Your task to perform on an android device: What's on my calendar tomorrow? Image 0: 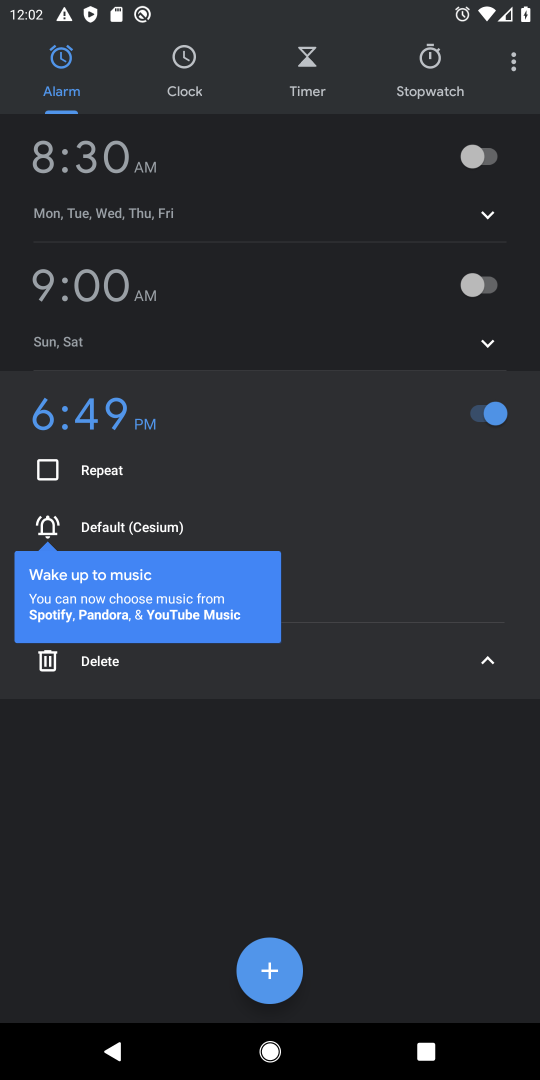
Step 0: press home button
Your task to perform on an android device: What's on my calendar tomorrow? Image 1: 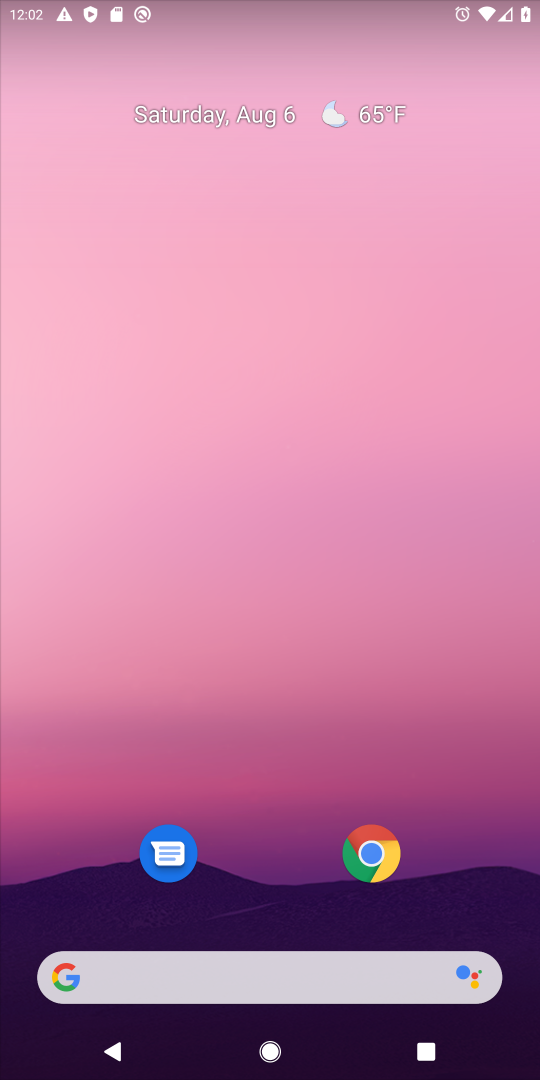
Step 1: drag from (240, 985) to (186, 14)
Your task to perform on an android device: What's on my calendar tomorrow? Image 2: 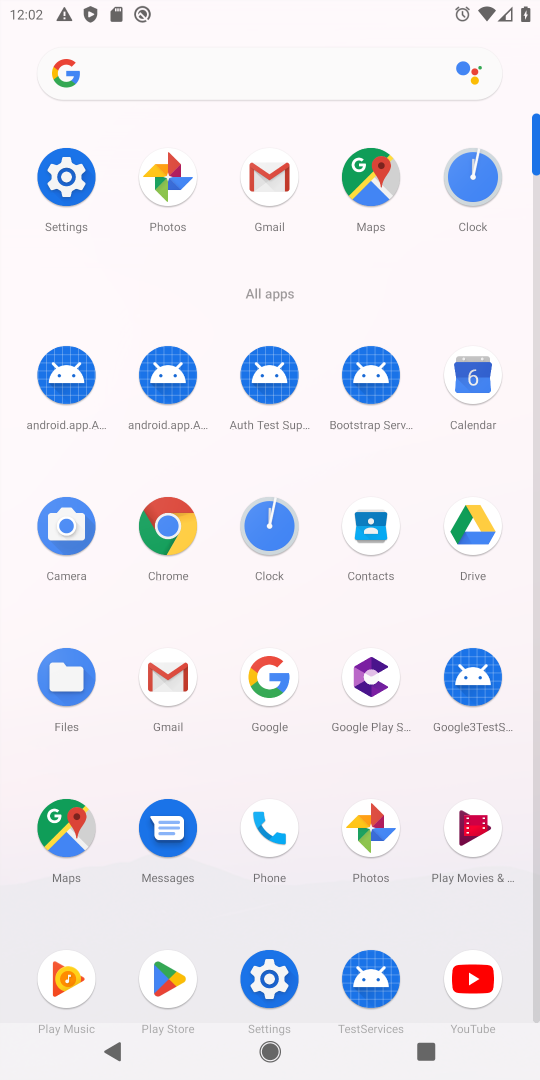
Step 2: click (462, 381)
Your task to perform on an android device: What's on my calendar tomorrow? Image 3: 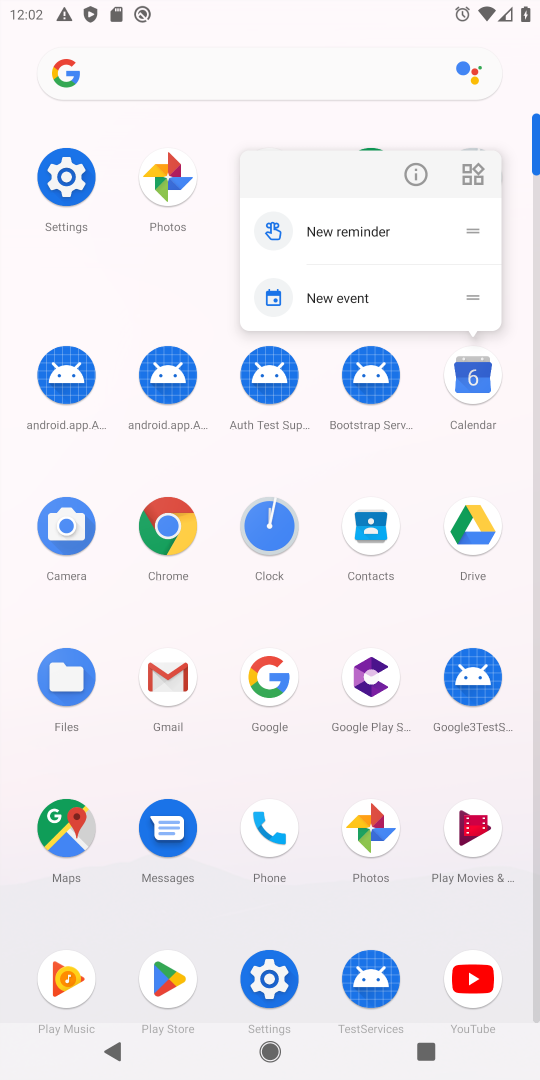
Step 3: click (473, 376)
Your task to perform on an android device: What's on my calendar tomorrow? Image 4: 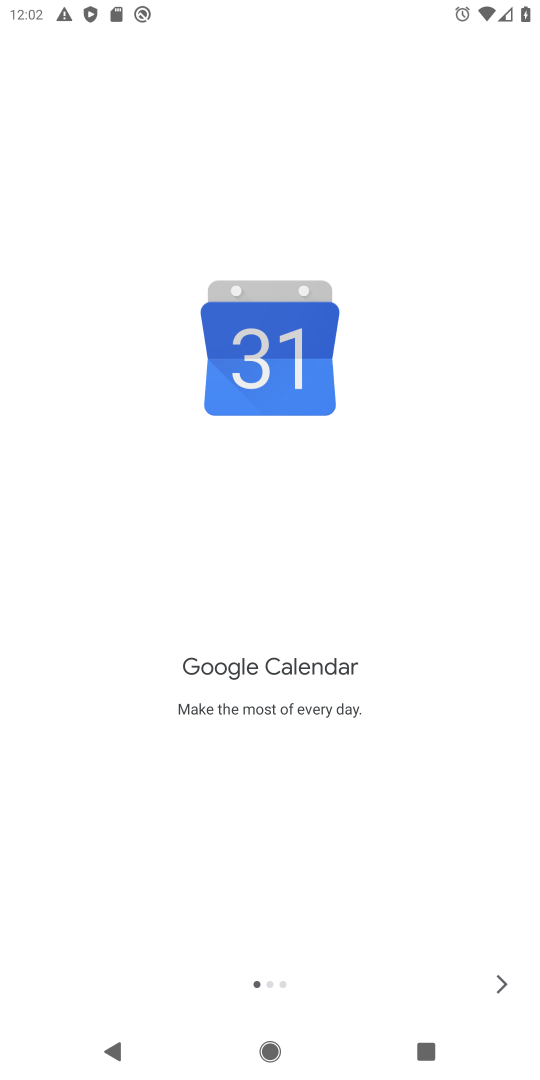
Step 4: click (488, 954)
Your task to perform on an android device: What's on my calendar tomorrow? Image 5: 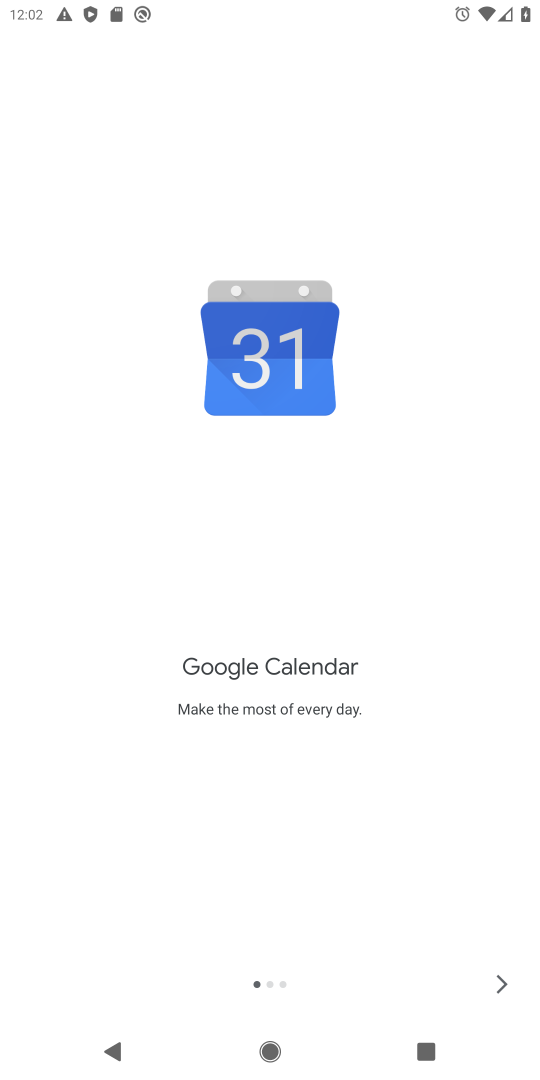
Step 5: click (495, 979)
Your task to perform on an android device: What's on my calendar tomorrow? Image 6: 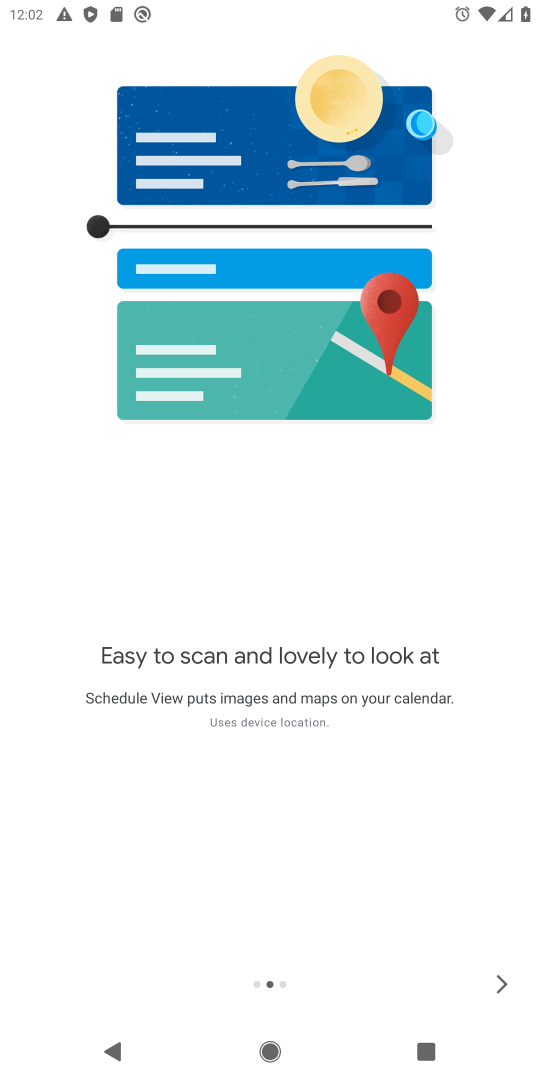
Step 6: click (495, 979)
Your task to perform on an android device: What's on my calendar tomorrow? Image 7: 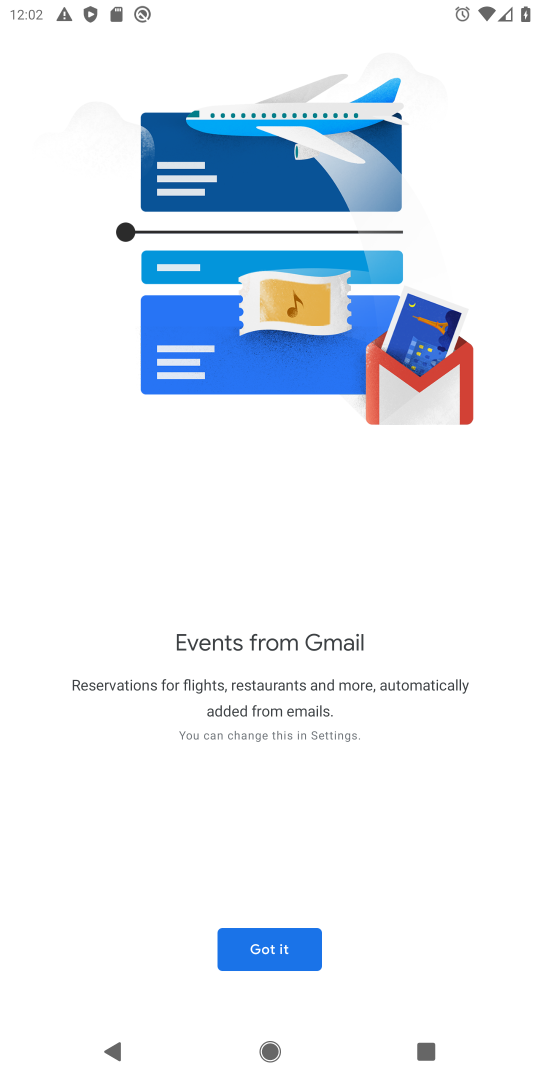
Step 7: click (268, 953)
Your task to perform on an android device: What's on my calendar tomorrow? Image 8: 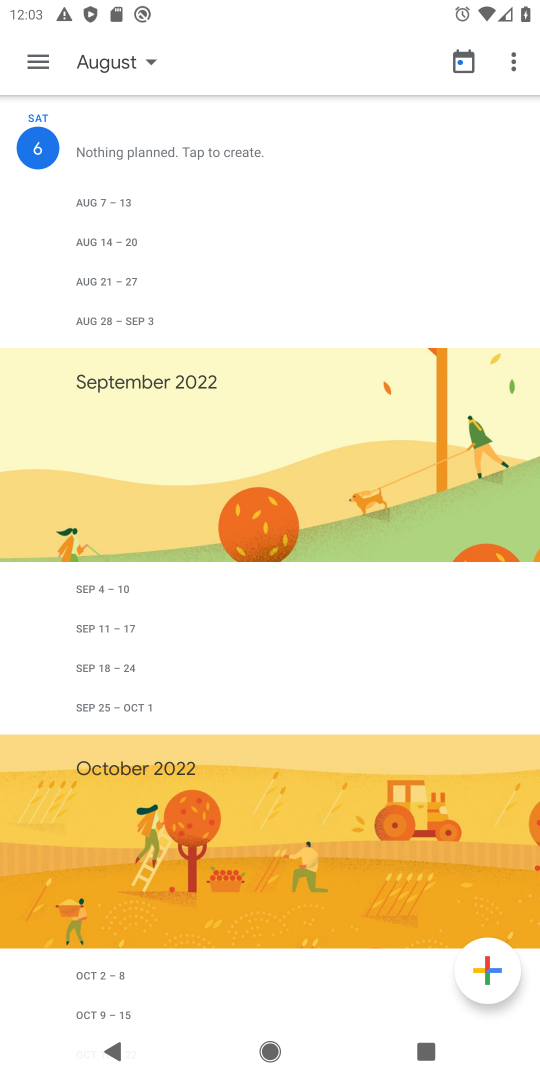
Step 8: click (144, 60)
Your task to perform on an android device: What's on my calendar tomorrow? Image 9: 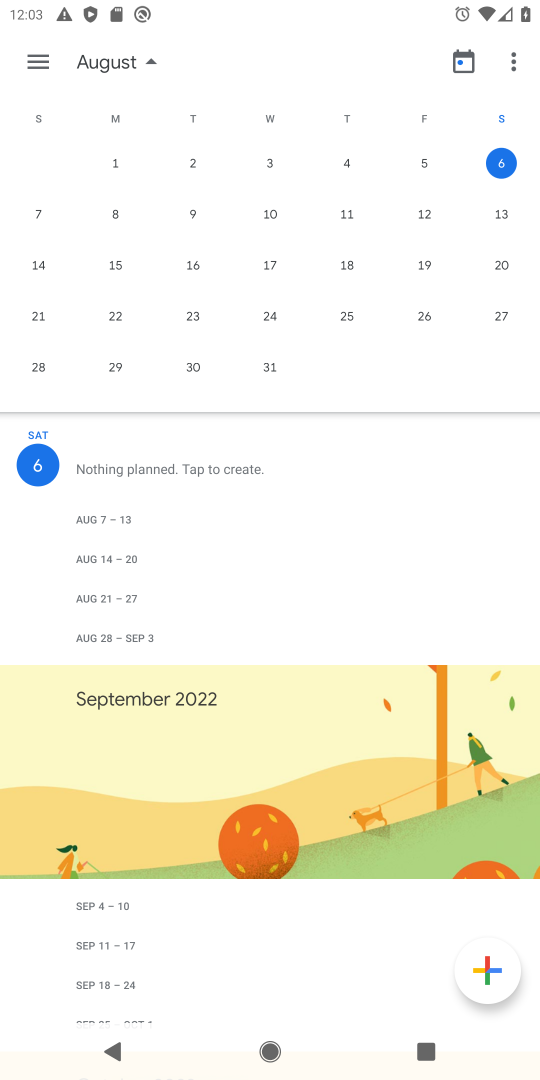
Step 9: click (46, 217)
Your task to perform on an android device: What's on my calendar tomorrow? Image 10: 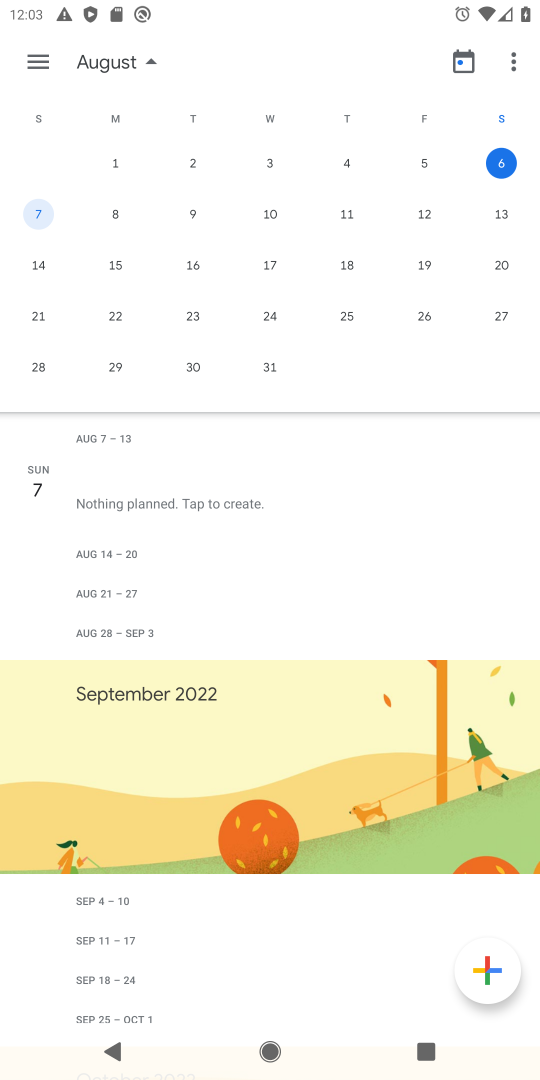
Step 10: task complete